Your task to perform on an android device: add a label to a message in the gmail app Image 0: 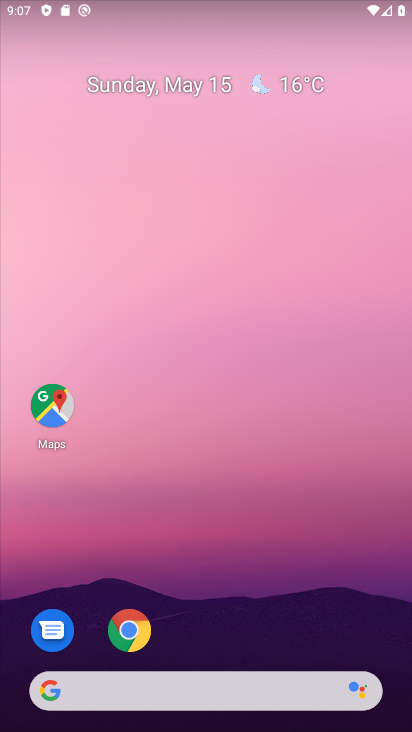
Step 0: drag from (198, 440) to (179, 220)
Your task to perform on an android device: add a label to a message in the gmail app Image 1: 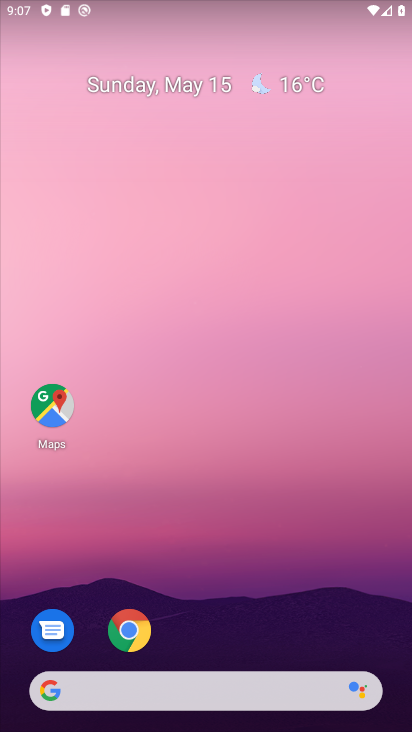
Step 1: drag from (223, 651) to (210, 235)
Your task to perform on an android device: add a label to a message in the gmail app Image 2: 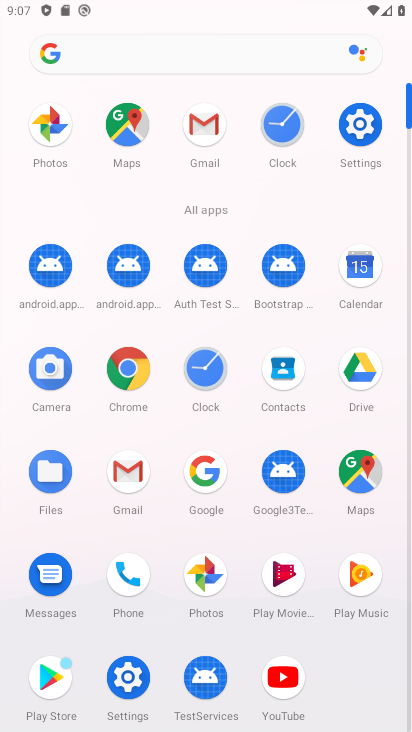
Step 2: click (213, 146)
Your task to perform on an android device: add a label to a message in the gmail app Image 3: 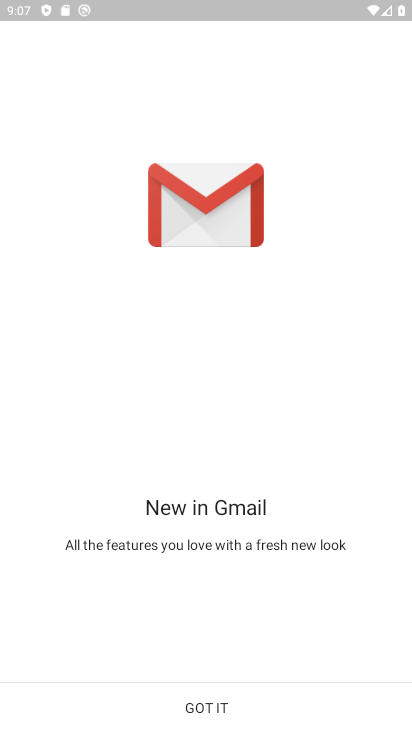
Step 3: click (182, 696)
Your task to perform on an android device: add a label to a message in the gmail app Image 4: 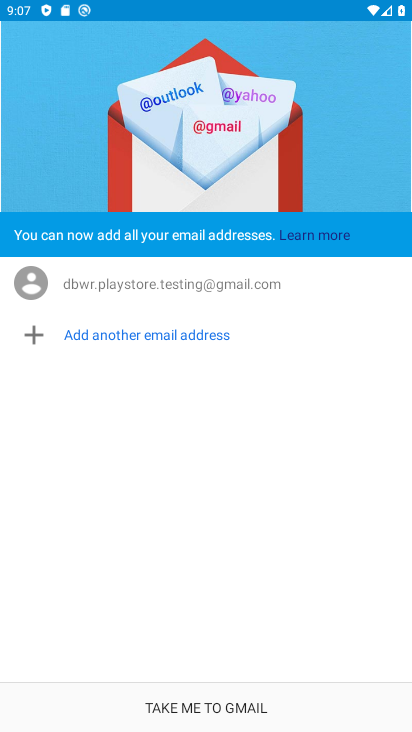
Step 4: click (182, 696)
Your task to perform on an android device: add a label to a message in the gmail app Image 5: 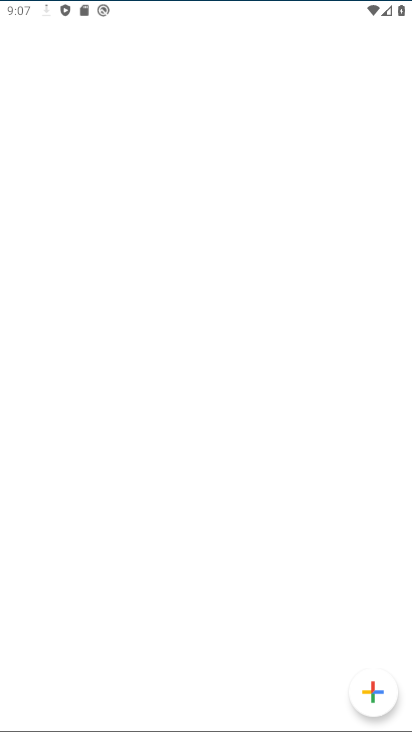
Step 5: click (148, 696)
Your task to perform on an android device: add a label to a message in the gmail app Image 6: 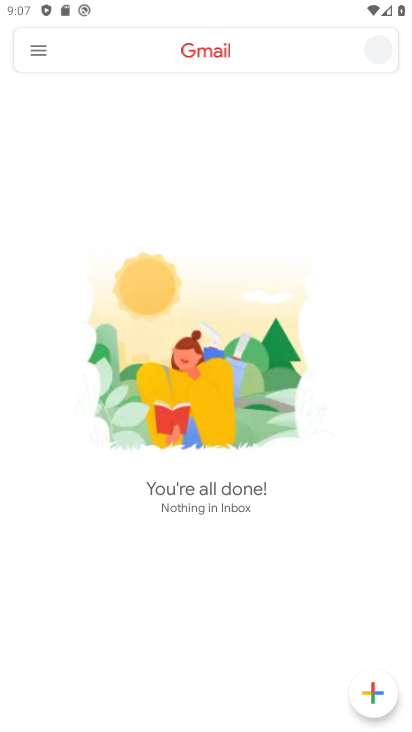
Step 6: click (36, 57)
Your task to perform on an android device: add a label to a message in the gmail app Image 7: 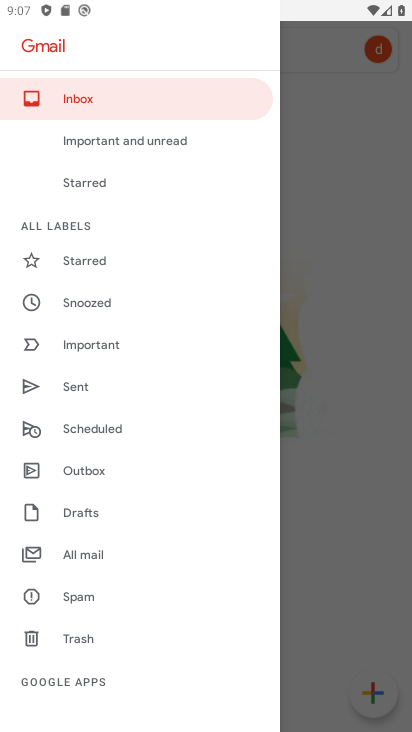
Step 7: click (73, 559)
Your task to perform on an android device: add a label to a message in the gmail app Image 8: 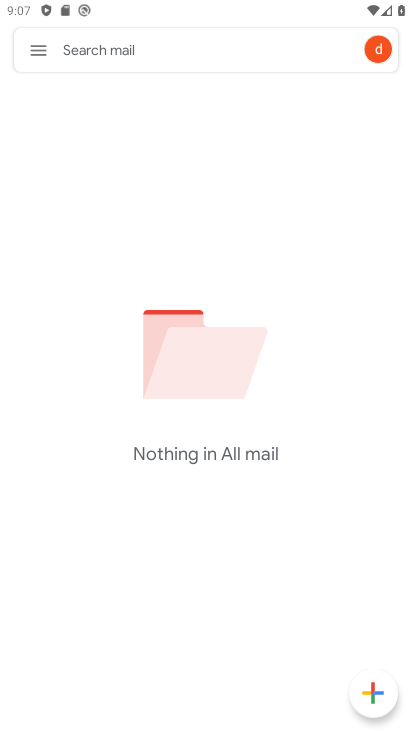
Step 8: task complete